Your task to perform on an android device: read, delete, or share a saved page in the chrome app Image 0: 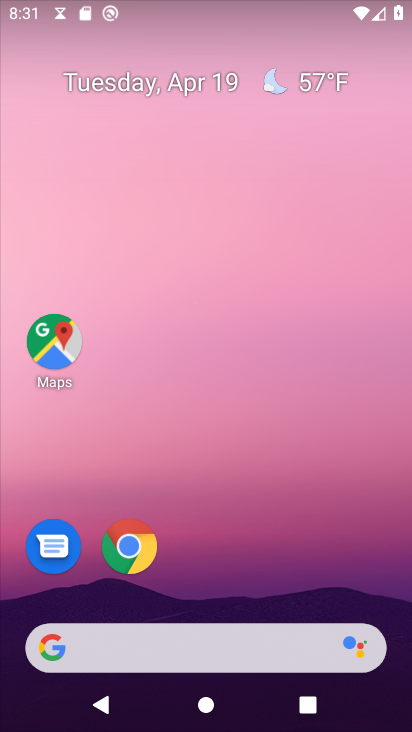
Step 0: click (121, 556)
Your task to perform on an android device: read, delete, or share a saved page in the chrome app Image 1: 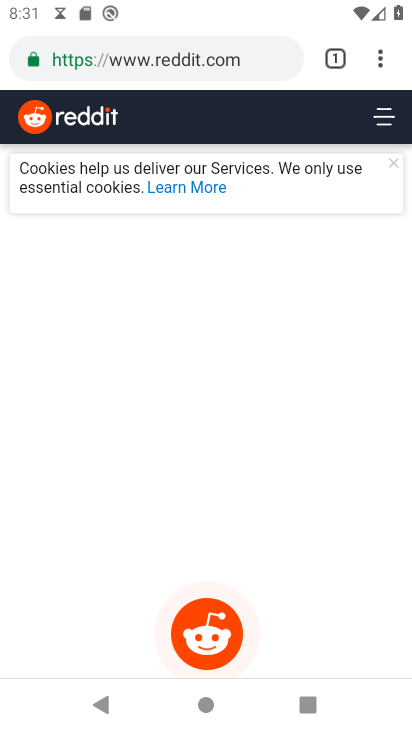
Step 1: click (387, 60)
Your task to perform on an android device: read, delete, or share a saved page in the chrome app Image 2: 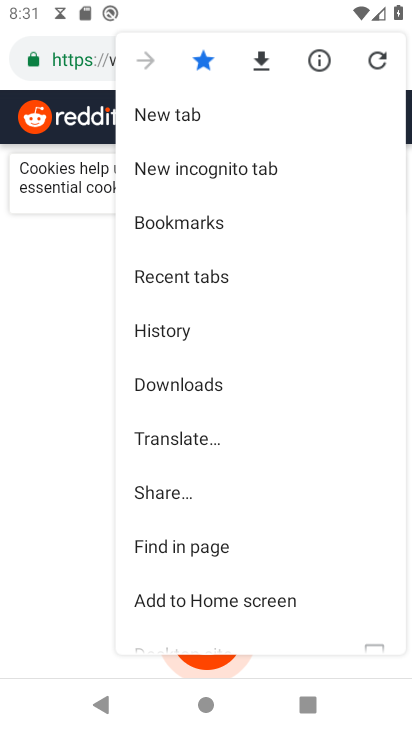
Step 2: drag from (205, 554) to (218, 294)
Your task to perform on an android device: read, delete, or share a saved page in the chrome app Image 3: 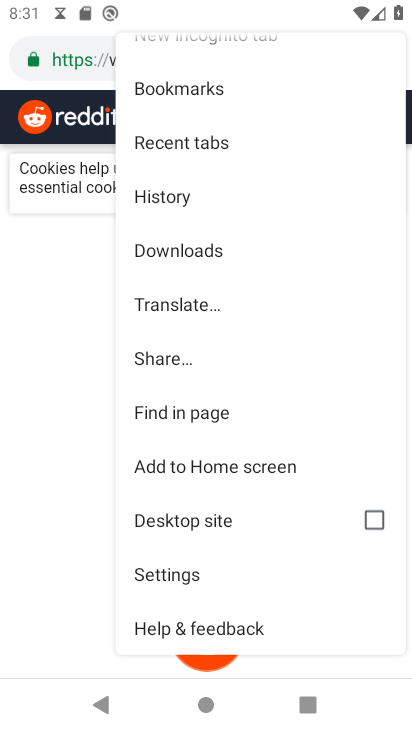
Step 3: click (191, 257)
Your task to perform on an android device: read, delete, or share a saved page in the chrome app Image 4: 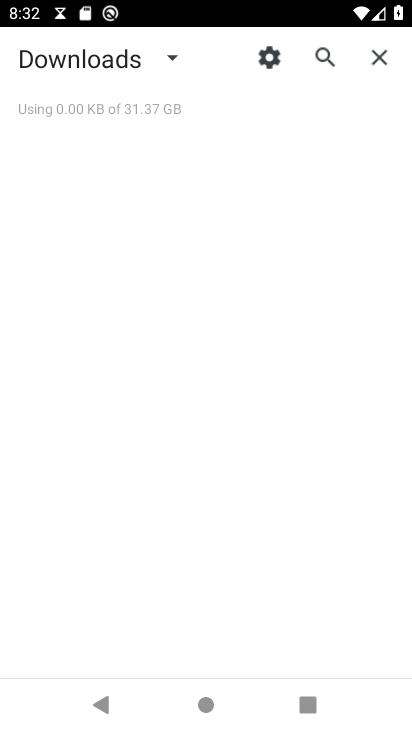
Step 4: task complete